Your task to perform on an android device: change your default location settings in chrome Image 0: 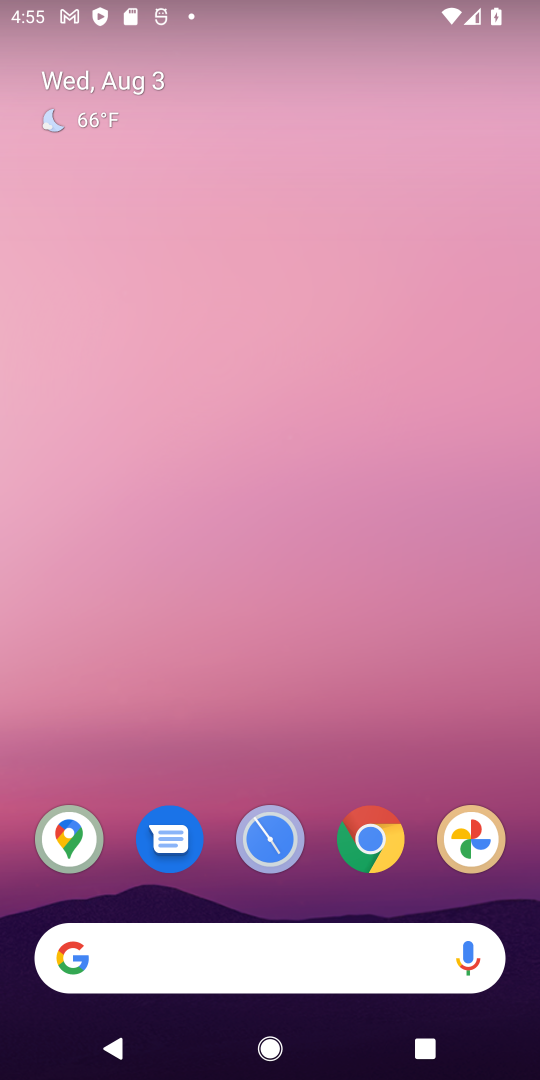
Step 0: click (373, 833)
Your task to perform on an android device: change your default location settings in chrome Image 1: 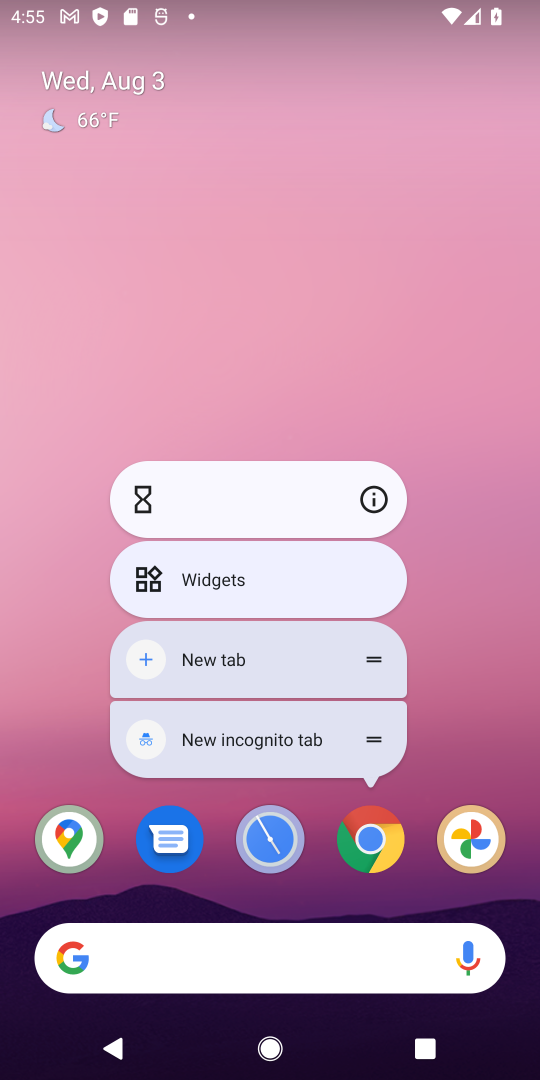
Step 1: click (369, 842)
Your task to perform on an android device: change your default location settings in chrome Image 2: 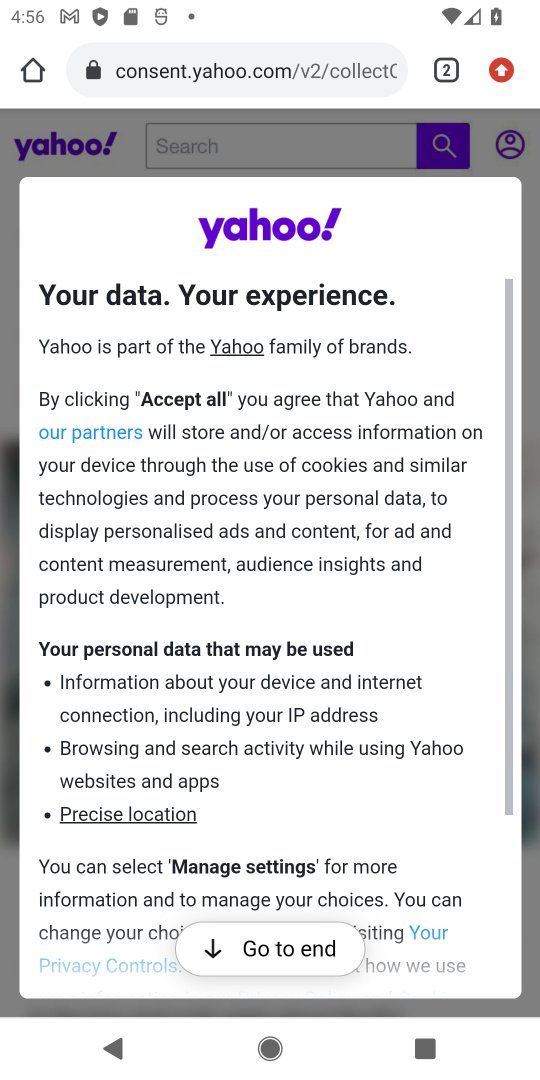
Step 2: drag from (500, 66) to (309, 894)
Your task to perform on an android device: change your default location settings in chrome Image 3: 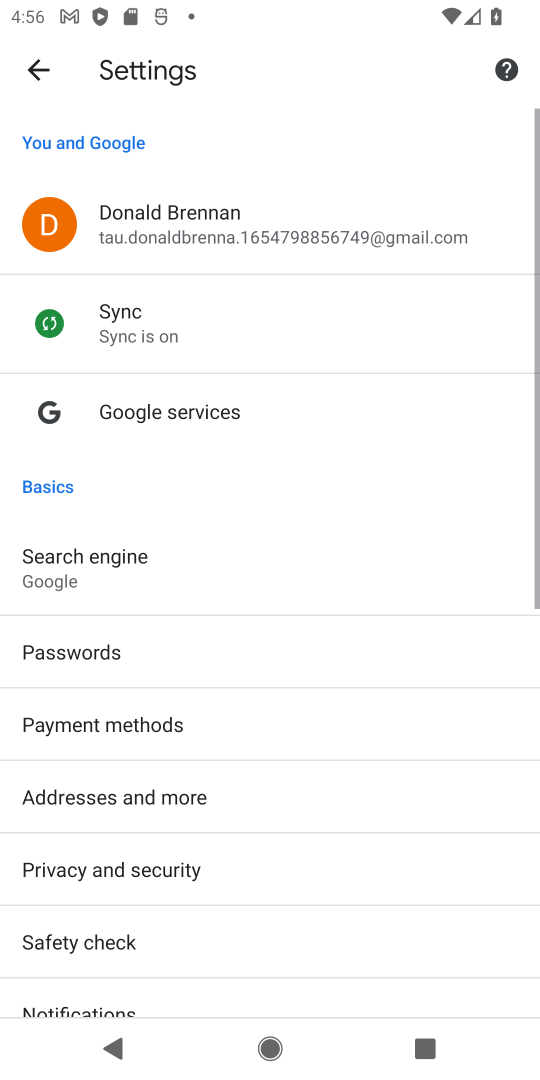
Step 3: drag from (192, 886) to (310, 202)
Your task to perform on an android device: change your default location settings in chrome Image 4: 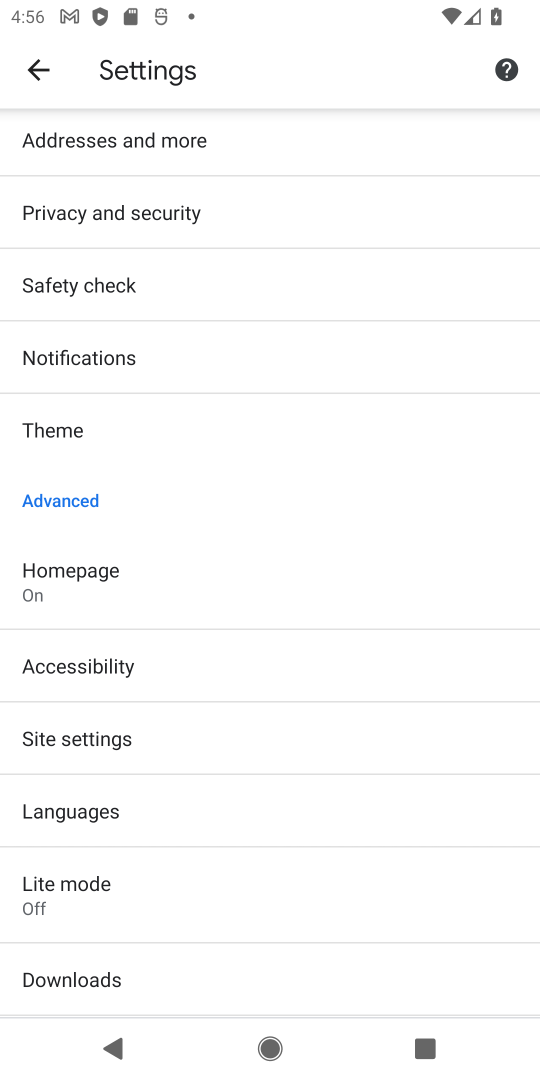
Step 4: click (113, 745)
Your task to perform on an android device: change your default location settings in chrome Image 5: 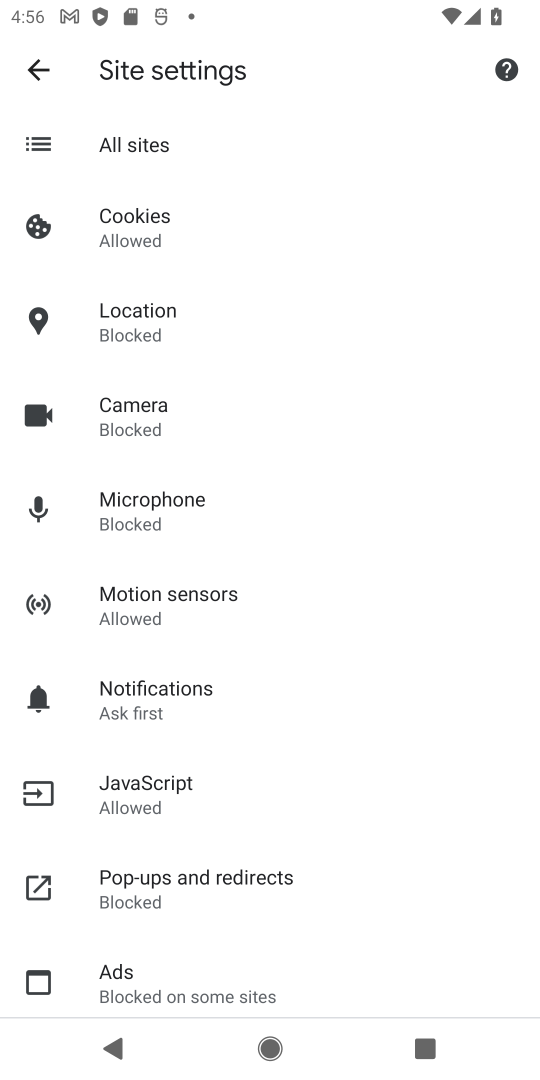
Step 5: click (180, 318)
Your task to perform on an android device: change your default location settings in chrome Image 6: 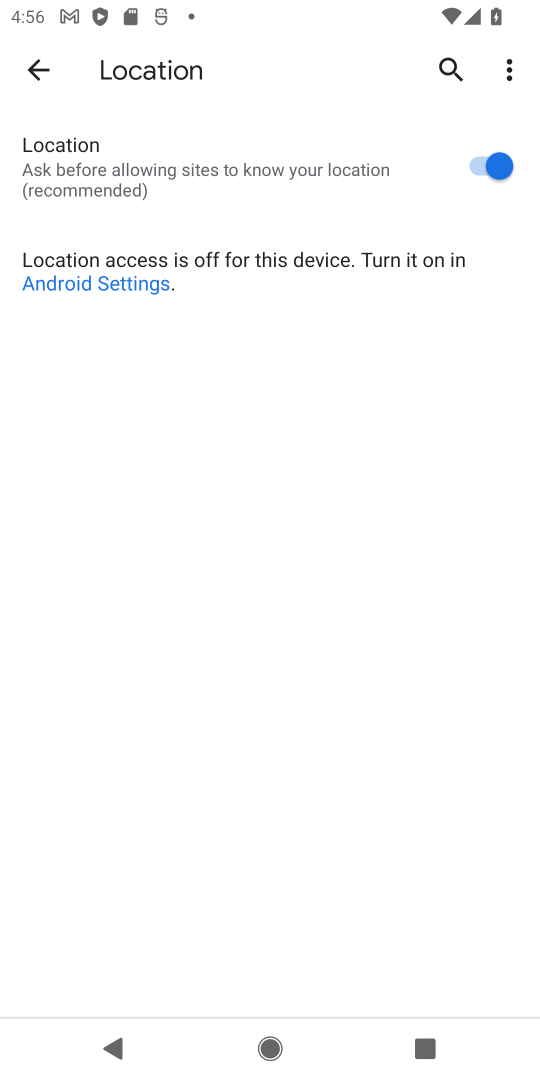
Step 6: click (483, 173)
Your task to perform on an android device: change your default location settings in chrome Image 7: 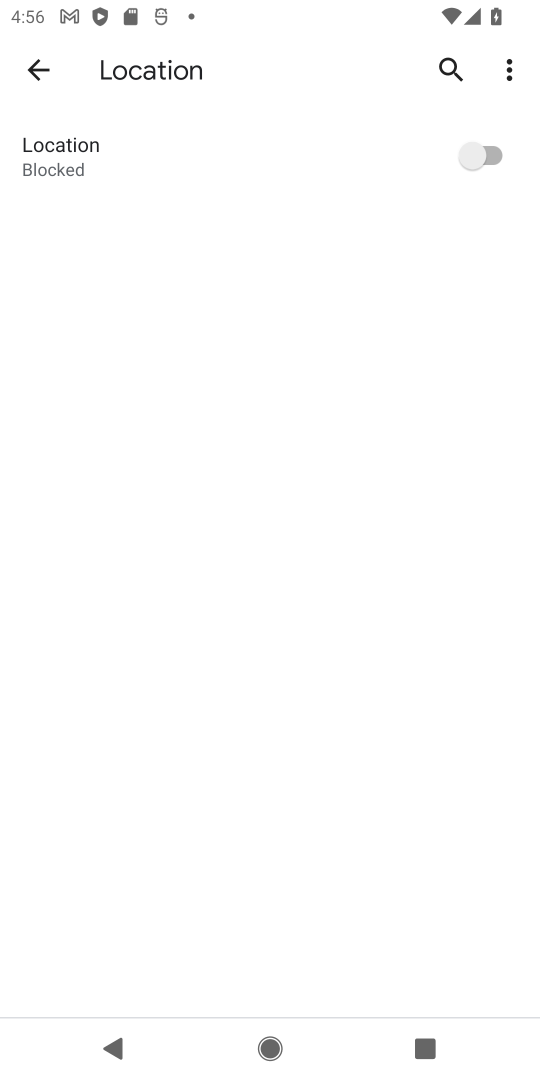
Step 7: task complete